Your task to perform on an android device: Open privacy settings Image 0: 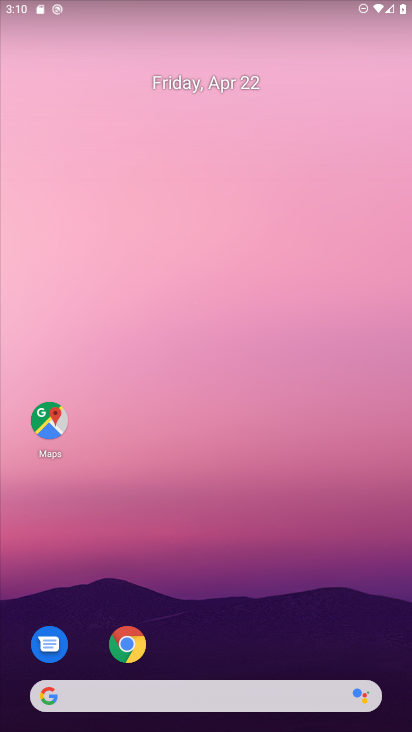
Step 0: drag from (301, 592) to (342, 9)
Your task to perform on an android device: Open privacy settings Image 1: 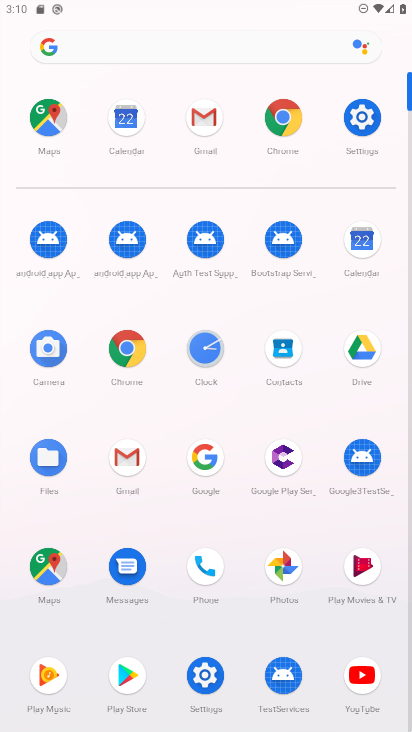
Step 1: click (360, 114)
Your task to perform on an android device: Open privacy settings Image 2: 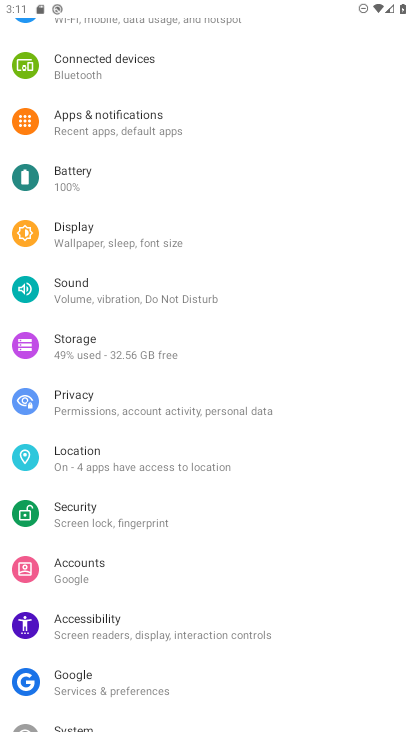
Step 2: click (89, 405)
Your task to perform on an android device: Open privacy settings Image 3: 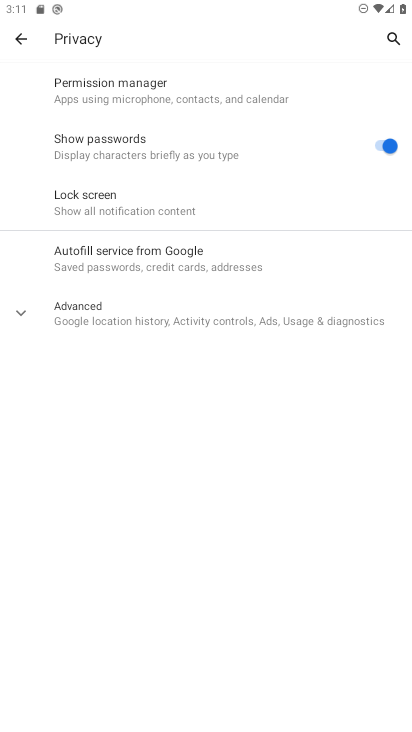
Step 3: task complete